Your task to perform on an android device: Open the stopwatch Image 0: 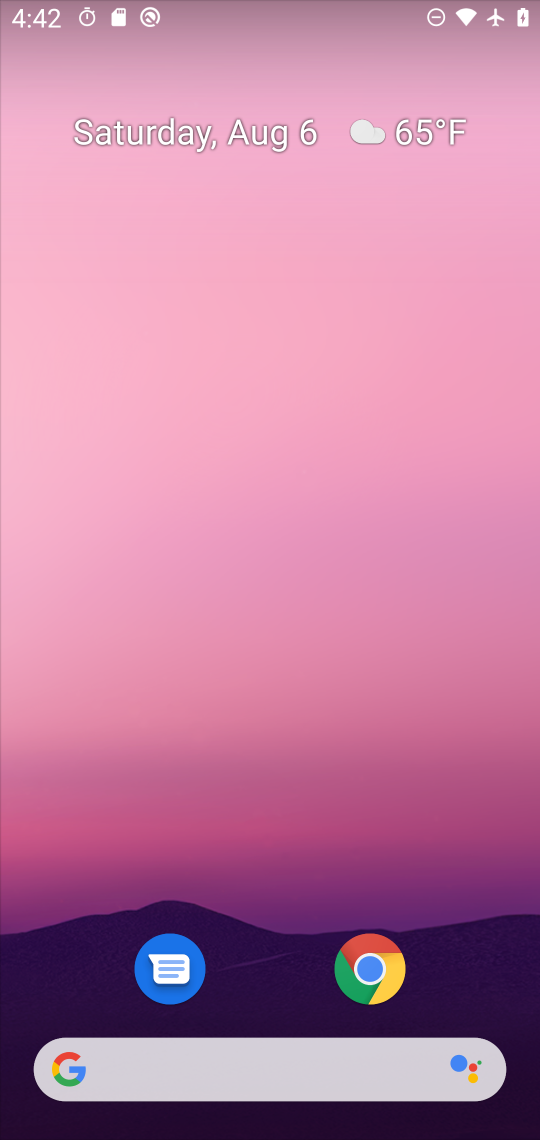
Step 0: drag from (309, 870) to (302, 81)
Your task to perform on an android device: Open the stopwatch Image 1: 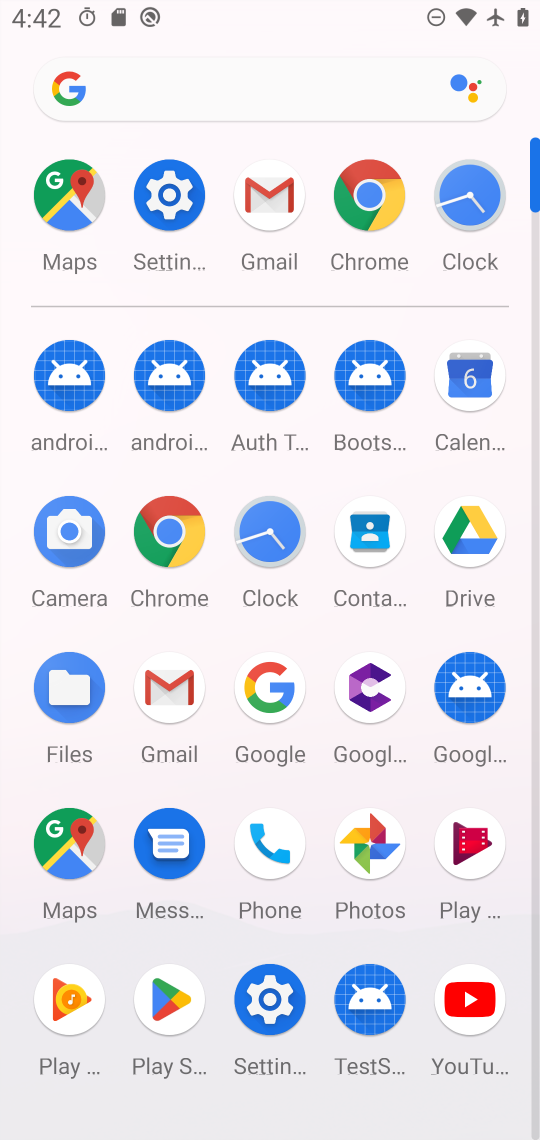
Step 1: click (472, 214)
Your task to perform on an android device: Open the stopwatch Image 2: 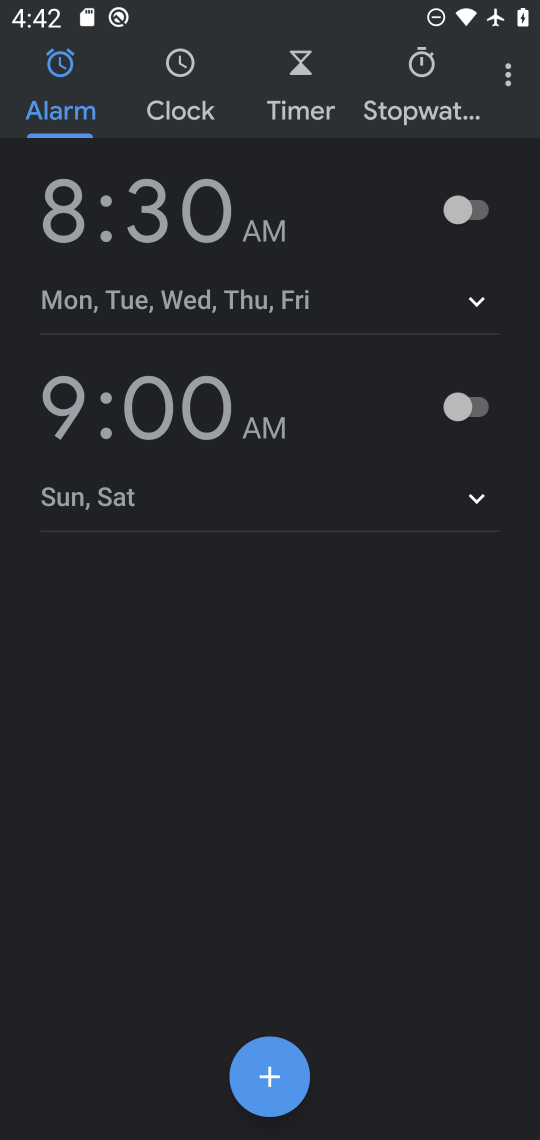
Step 2: click (417, 70)
Your task to perform on an android device: Open the stopwatch Image 3: 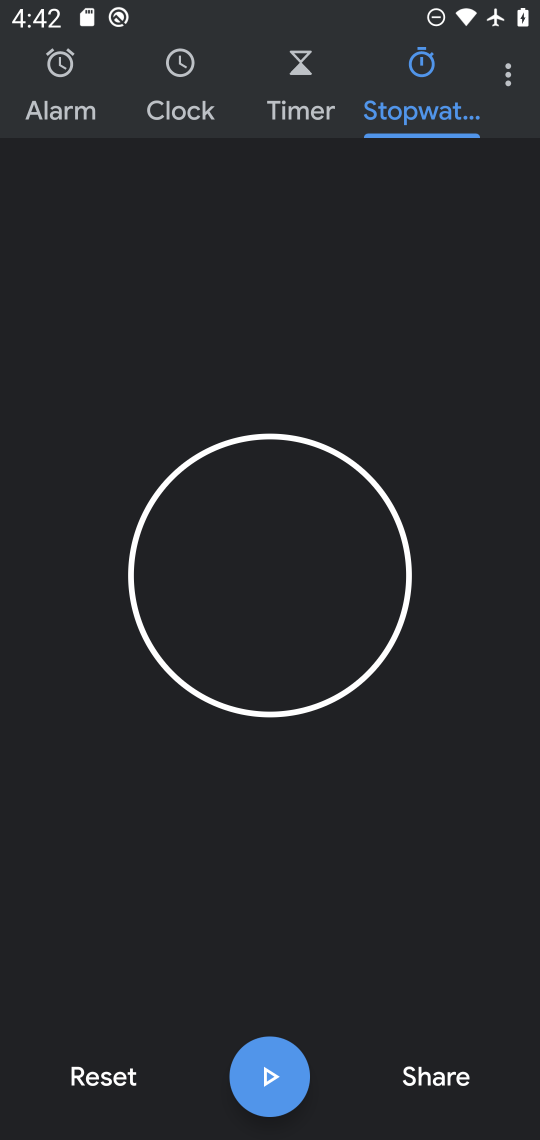
Step 3: task complete